Your task to perform on an android device: Go to eBay Image 0: 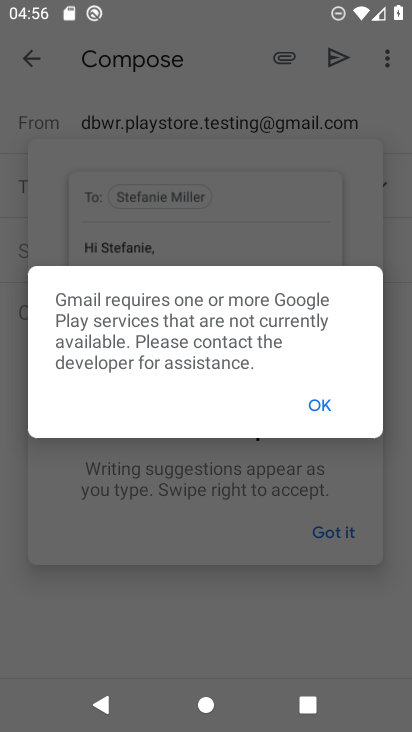
Step 0: press home button
Your task to perform on an android device: Go to eBay Image 1: 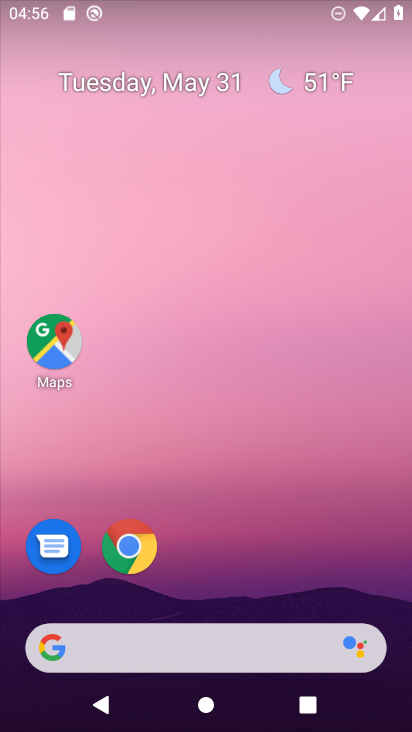
Step 1: click (118, 564)
Your task to perform on an android device: Go to eBay Image 2: 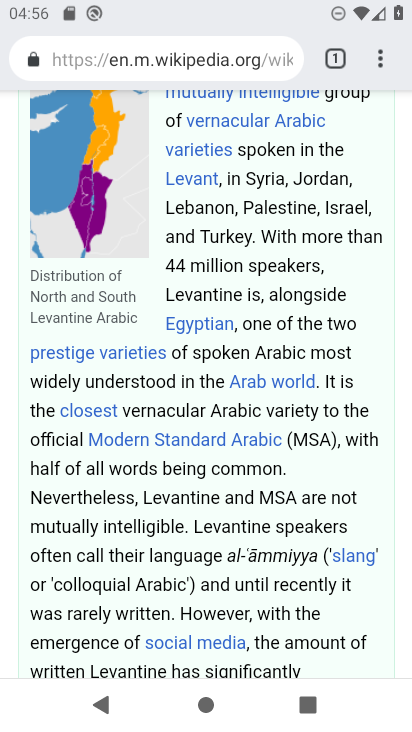
Step 2: press back button
Your task to perform on an android device: Go to eBay Image 3: 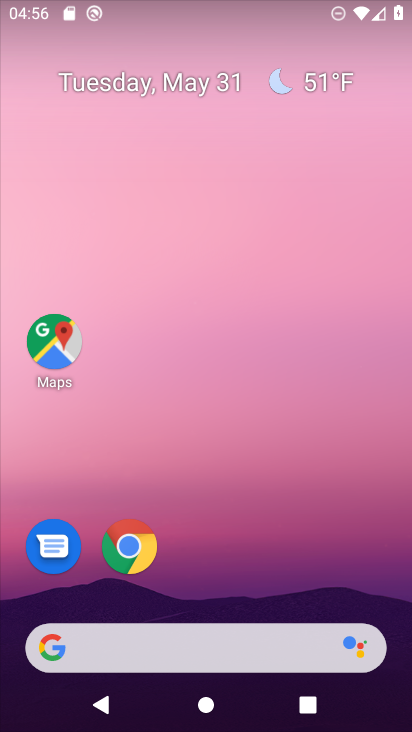
Step 3: click (121, 554)
Your task to perform on an android device: Go to eBay Image 4: 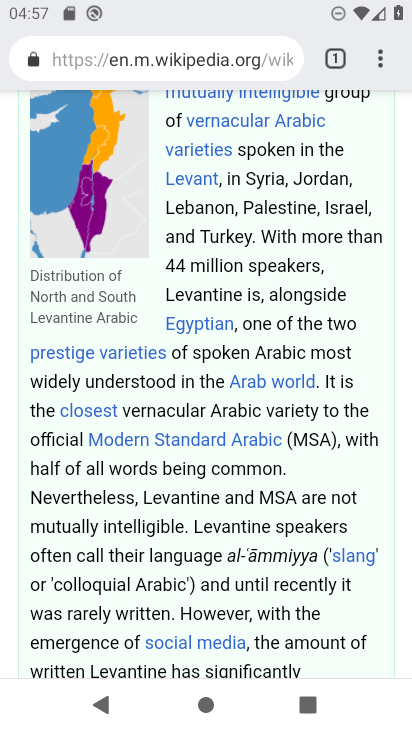
Step 4: click (224, 55)
Your task to perform on an android device: Go to eBay Image 5: 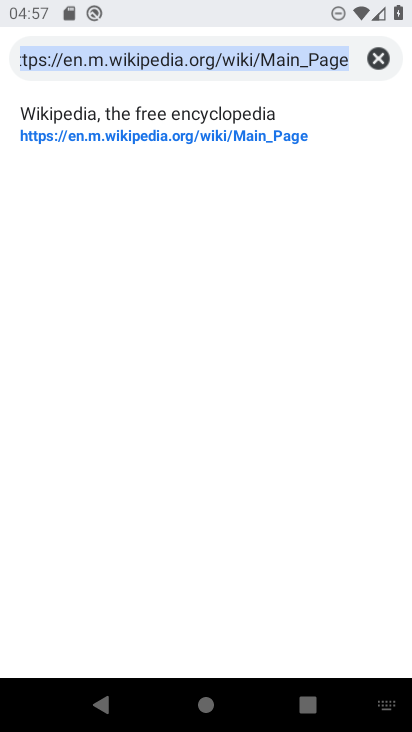
Step 5: type "www.ebay.com"
Your task to perform on an android device: Go to eBay Image 6: 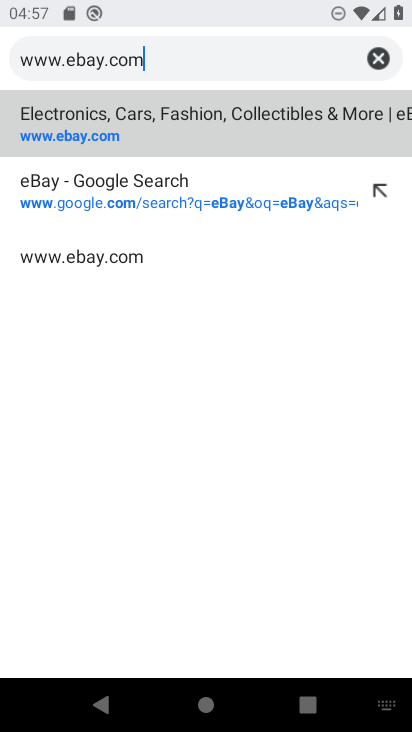
Step 6: click (94, 125)
Your task to perform on an android device: Go to eBay Image 7: 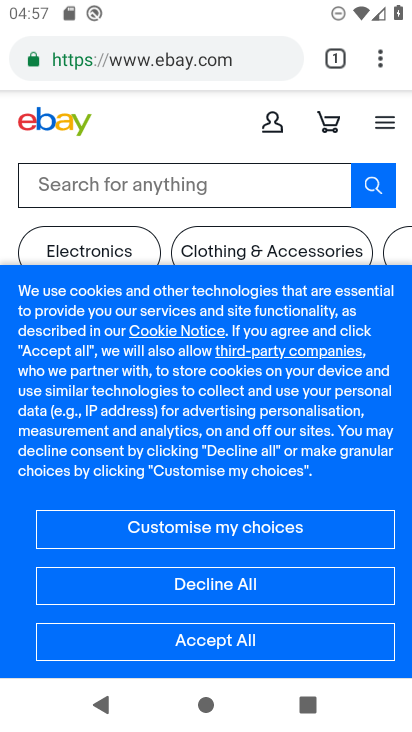
Step 7: task complete